Your task to perform on an android device: Open Reddit.com Image 0: 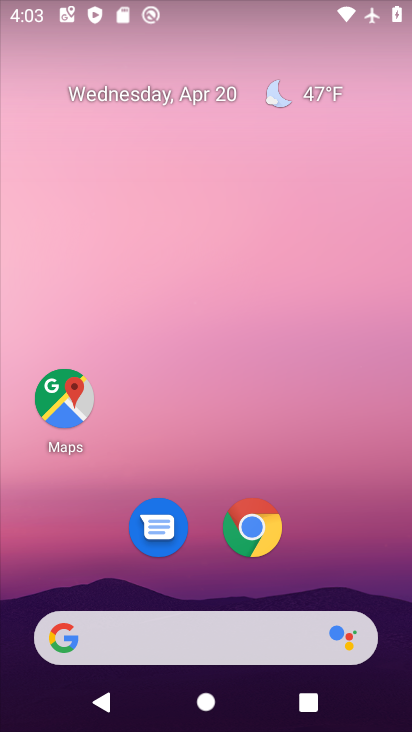
Step 0: click (277, 541)
Your task to perform on an android device: Open Reddit.com Image 1: 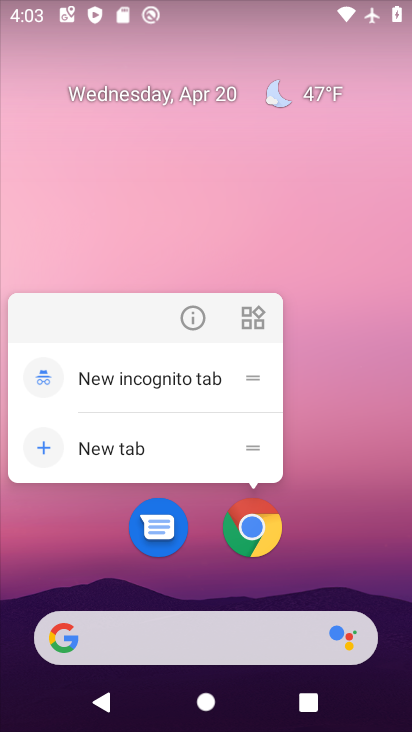
Step 1: click (257, 540)
Your task to perform on an android device: Open Reddit.com Image 2: 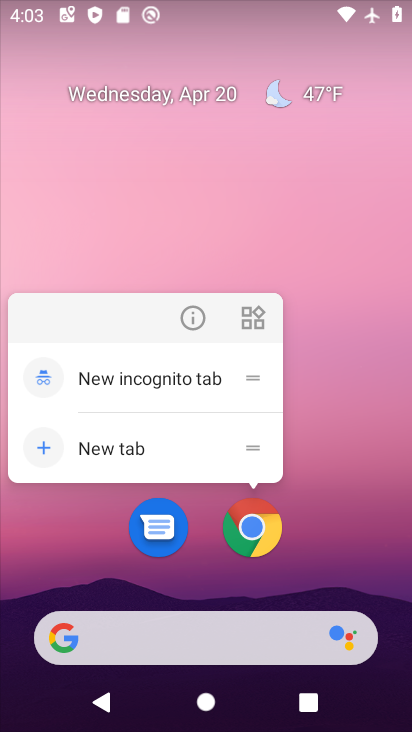
Step 2: click (257, 540)
Your task to perform on an android device: Open Reddit.com Image 3: 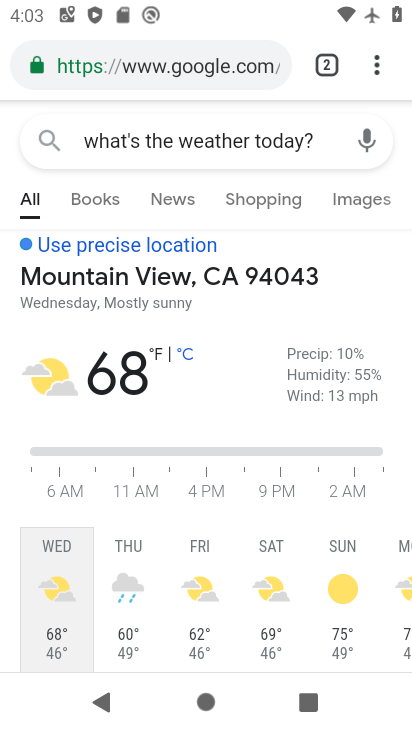
Step 3: click (232, 57)
Your task to perform on an android device: Open Reddit.com Image 4: 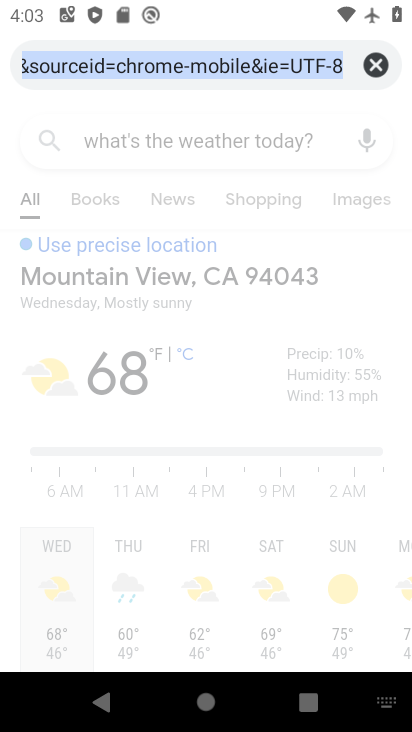
Step 4: type "Reddit.com"
Your task to perform on an android device: Open Reddit.com Image 5: 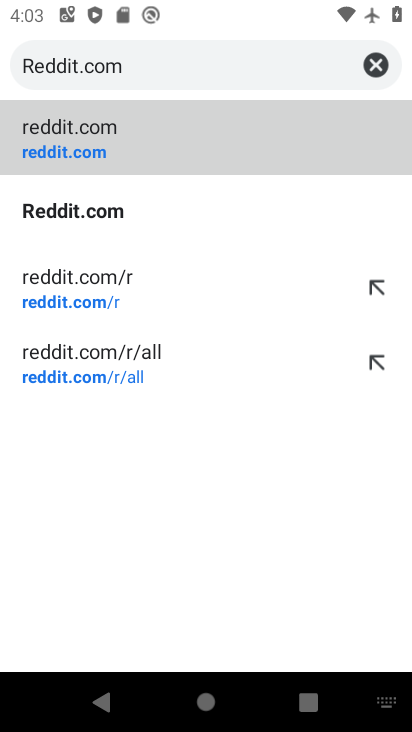
Step 5: click (69, 132)
Your task to perform on an android device: Open Reddit.com Image 6: 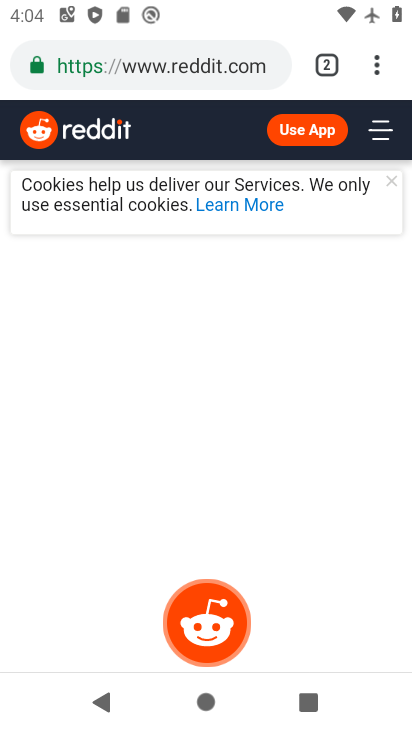
Step 6: task complete